Your task to perform on an android device: Open my contact list Image 0: 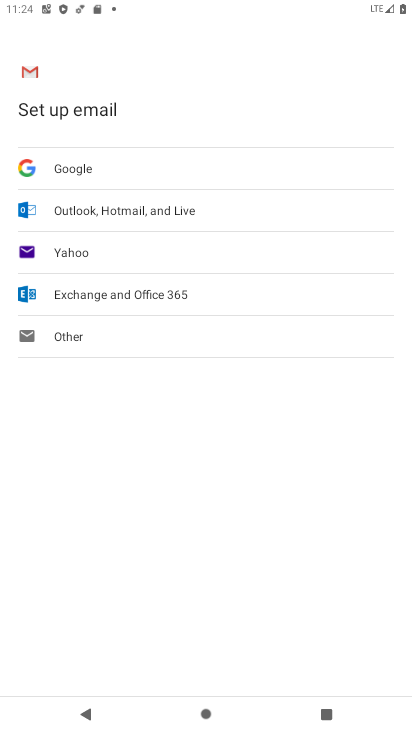
Step 0: press home button
Your task to perform on an android device: Open my contact list Image 1: 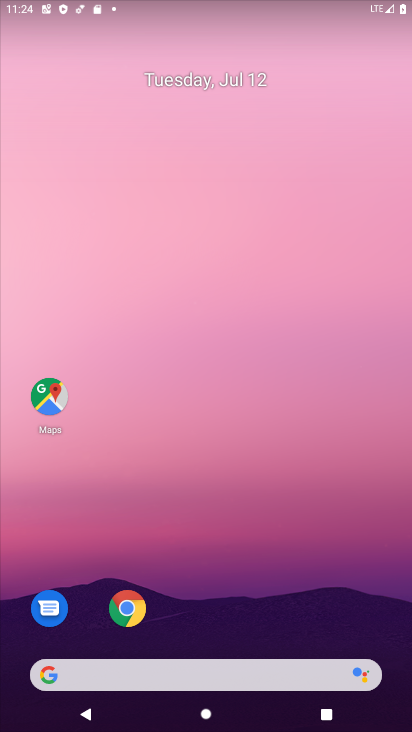
Step 1: drag from (178, 628) to (237, 21)
Your task to perform on an android device: Open my contact list Image 2: 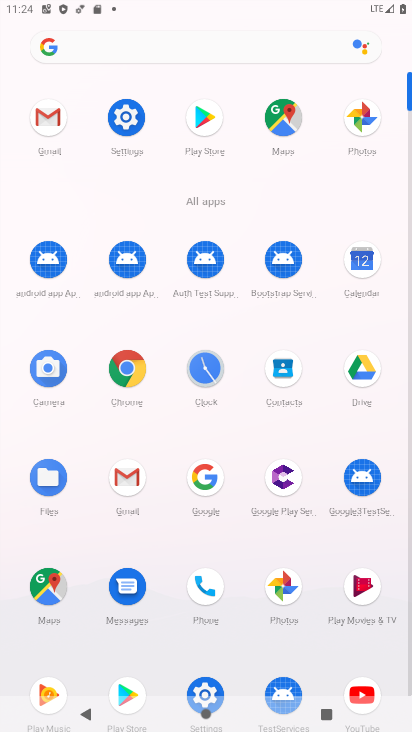
Step 2: click (286, 357)
Your task to perform on an android device: Open my contact list Image 3: 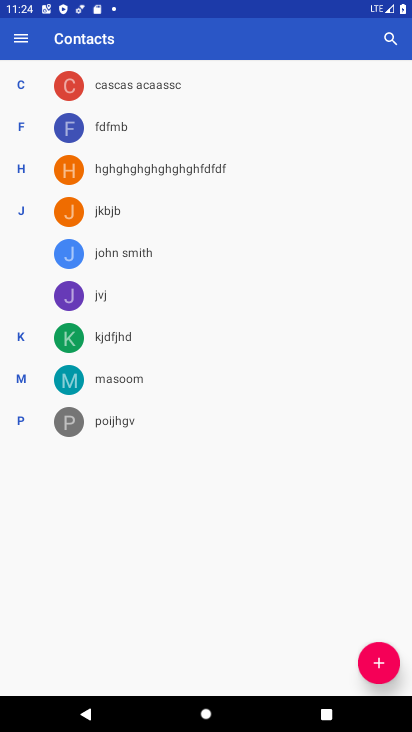
Step 3: task complete